Your task to perform on an android device: Clear the cart on costco.com. Image 0: 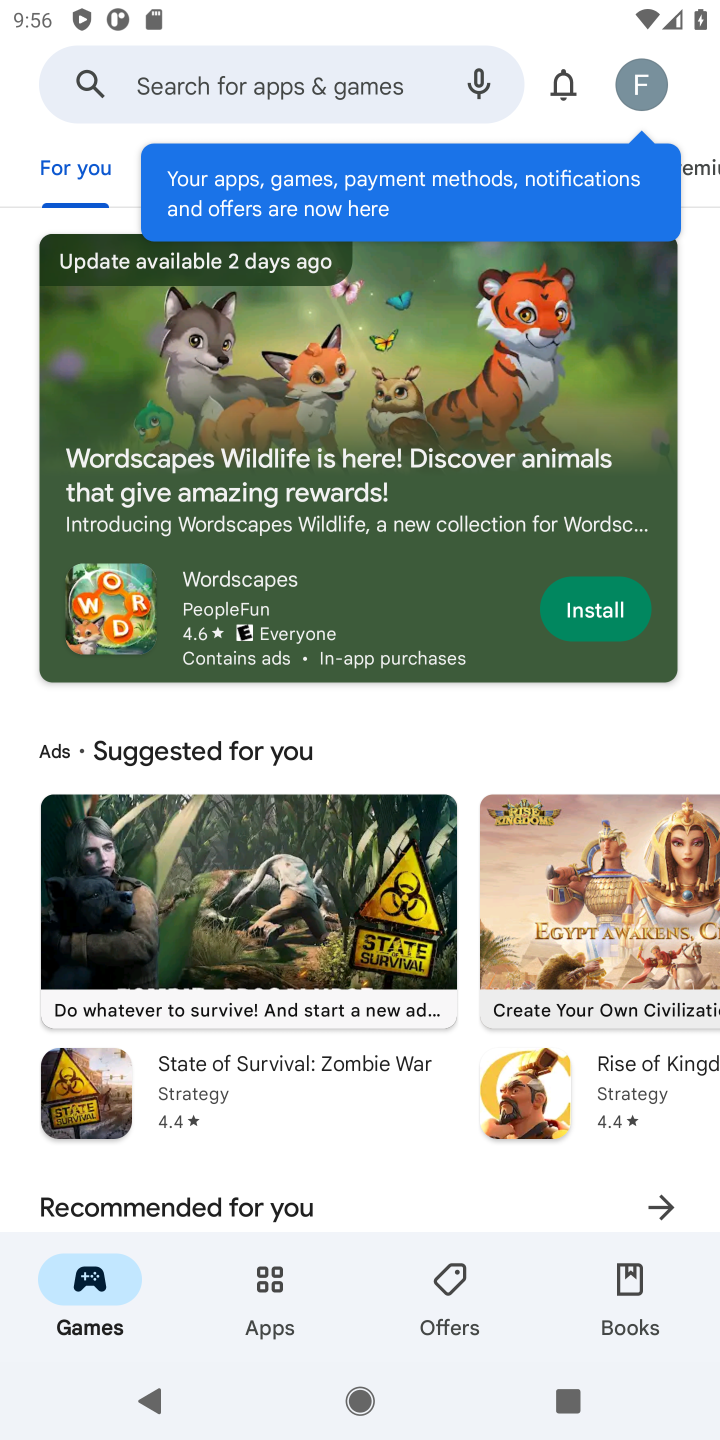
Step 0: press home button
Your task to perform on an android device: Clear the cart on costco.com. Image 1: 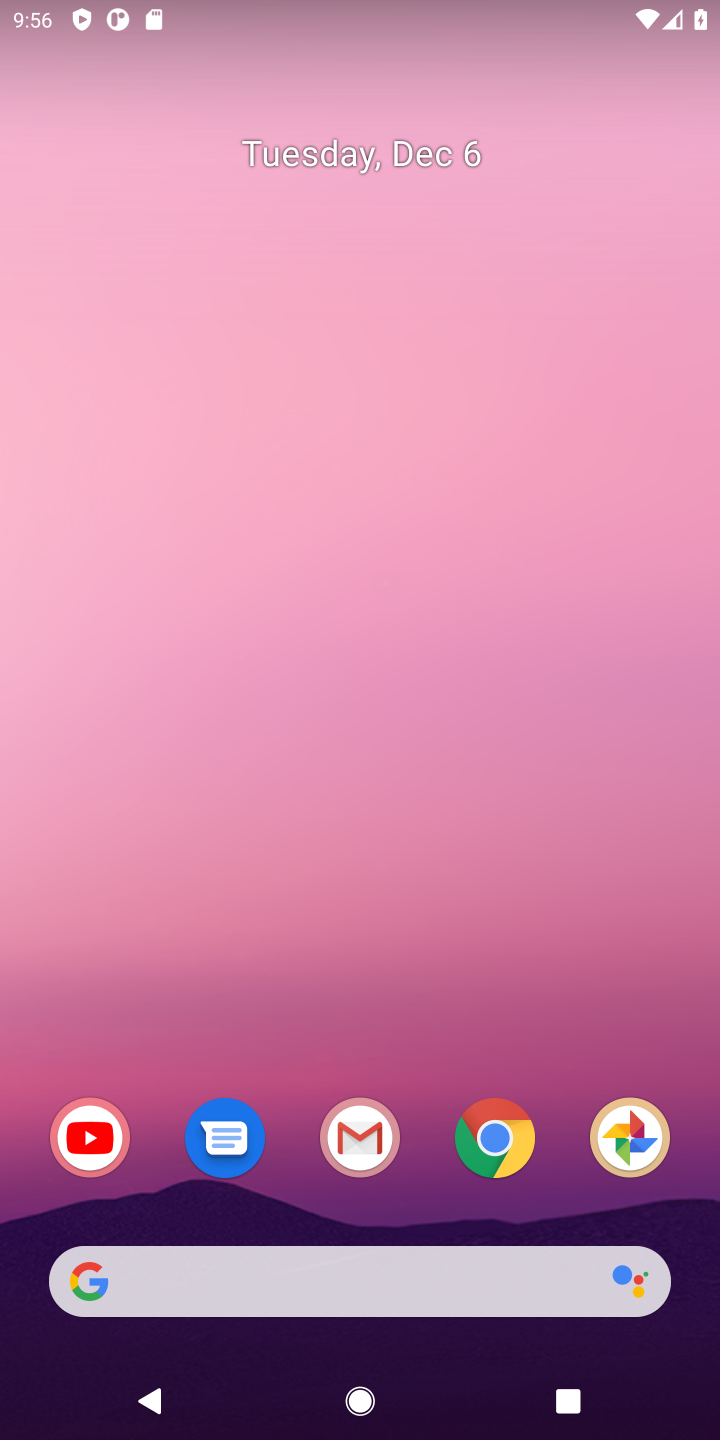
Step 1: click (507, 1145)
Your task to perform on an android device: Clear the cart on costco.com. Image 2: 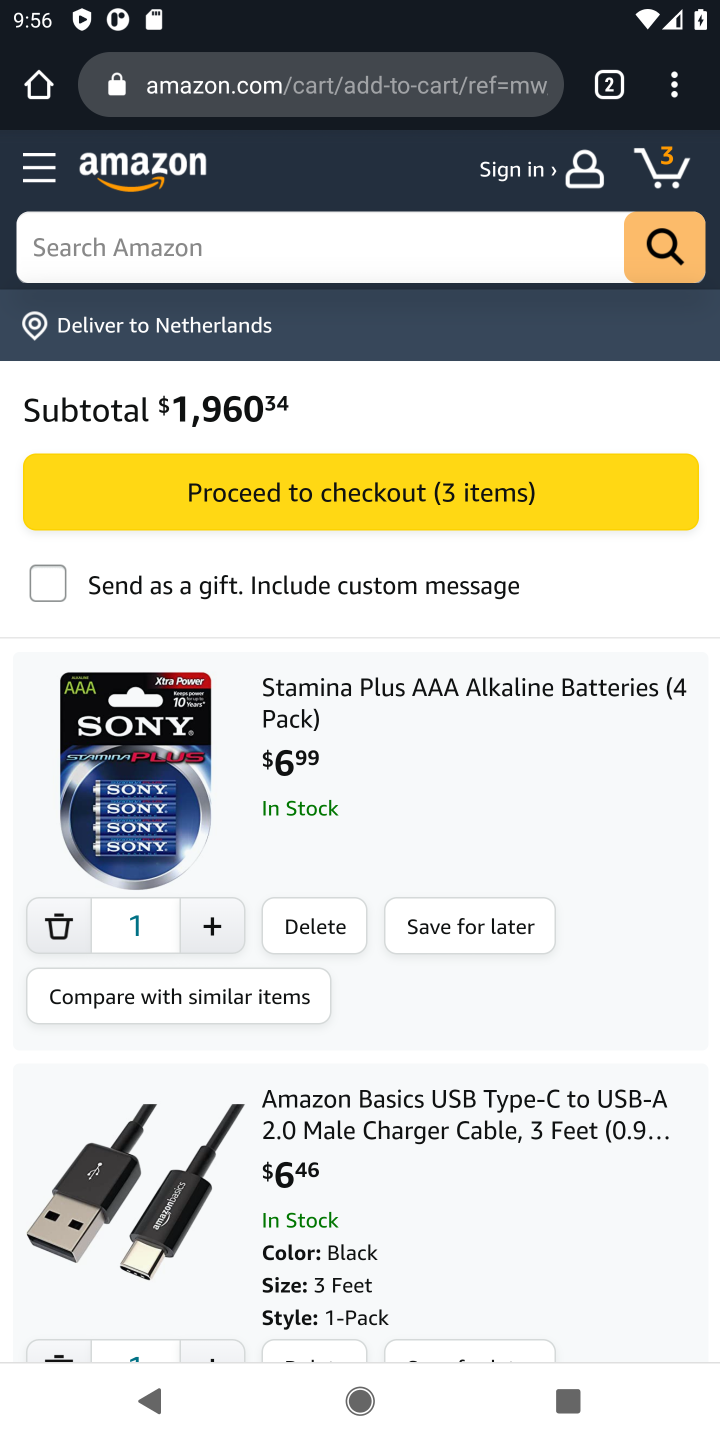
Step 2: click (283, 95)
Your task to perform on an android device: Clear the cart on costco.com. Image 3: 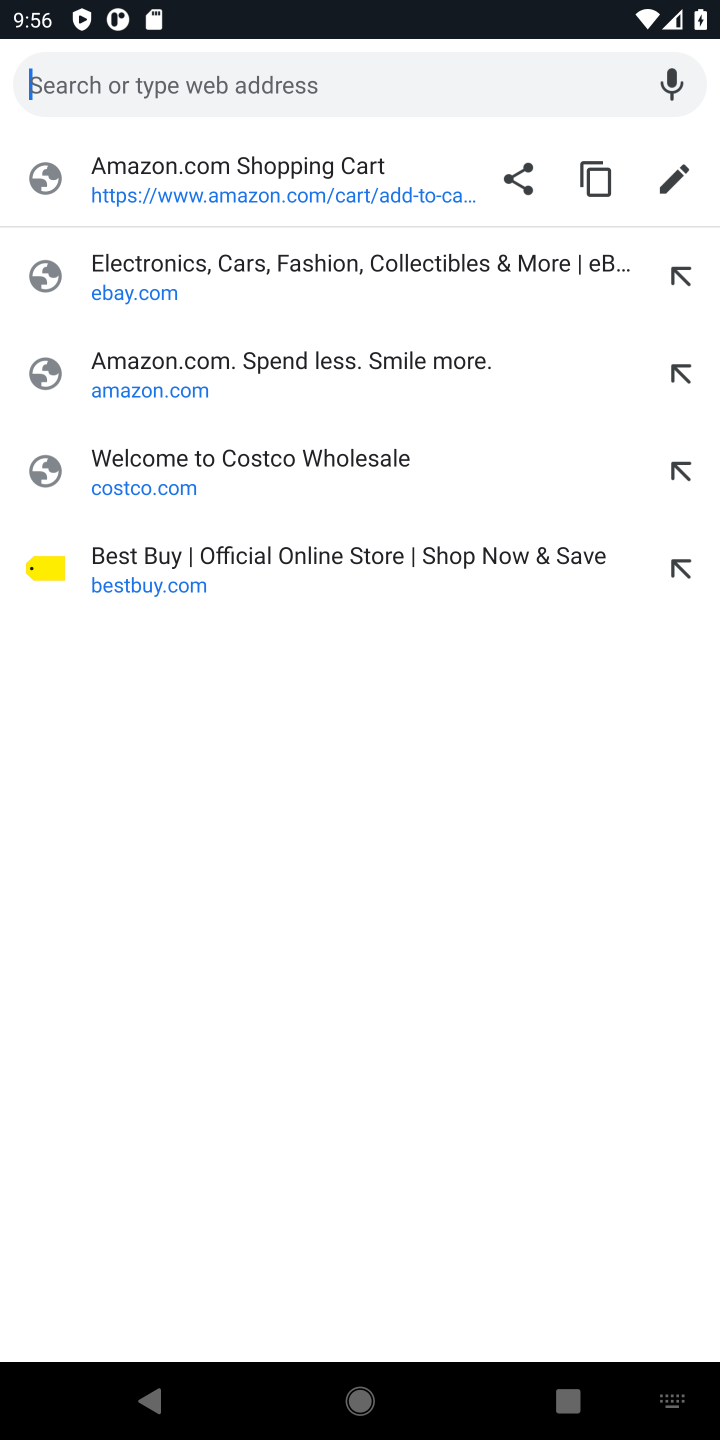
Step 3: click (133, 476)
Your task to perform on an android device: Clear the cart on costco.com. Image 4: 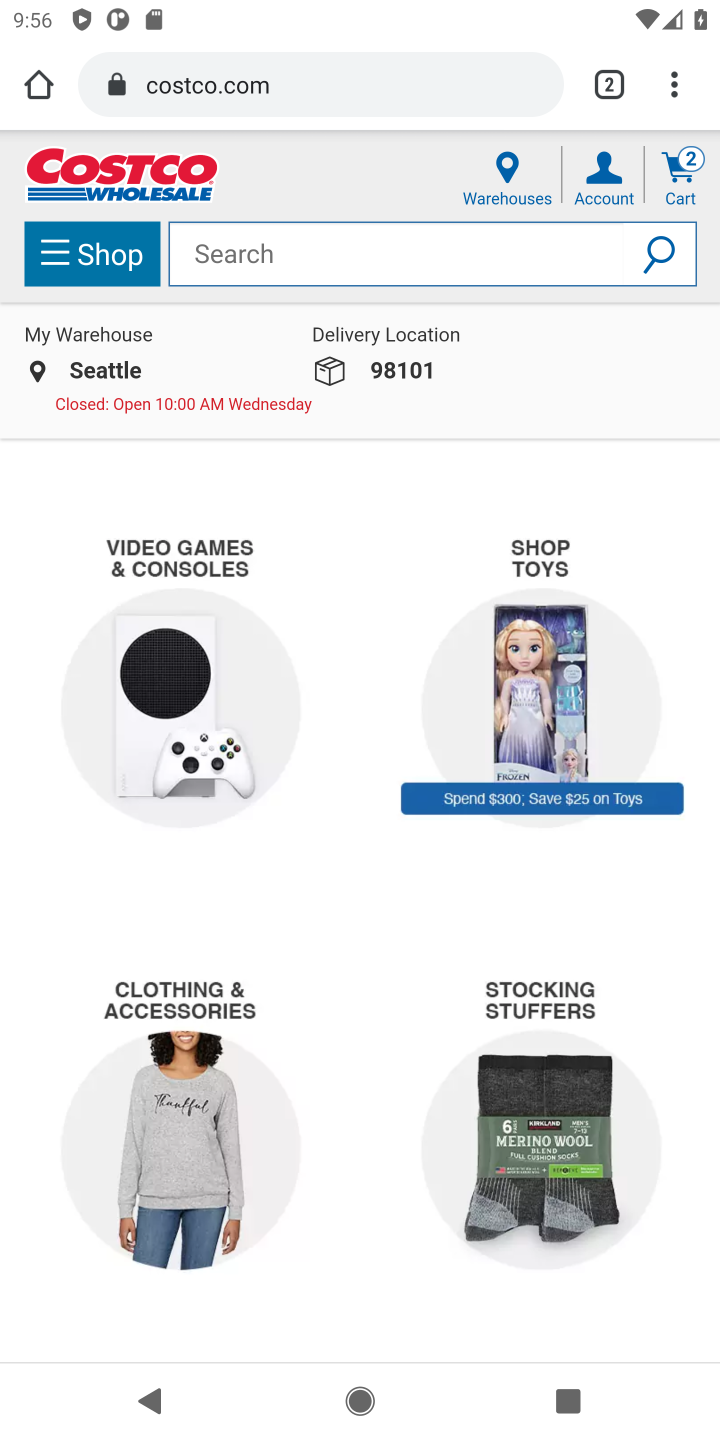
Step 4: click (679, 166)
Your task to perform on an android device: Clear the cart on costco.com. Image 5: 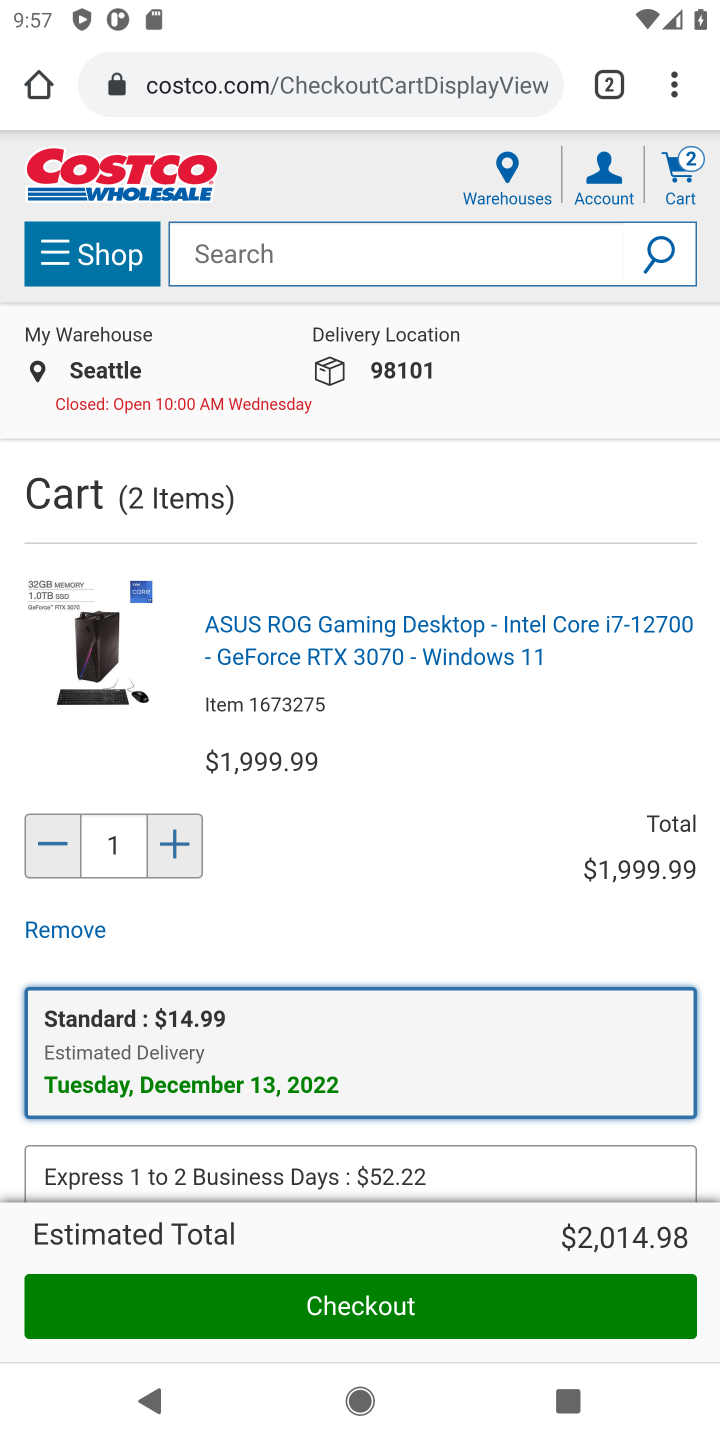
Step 5: drag from (442, 879) to (431, 362)
Your task to perform on an android device: Clear the cart on costco.com. Image 6: 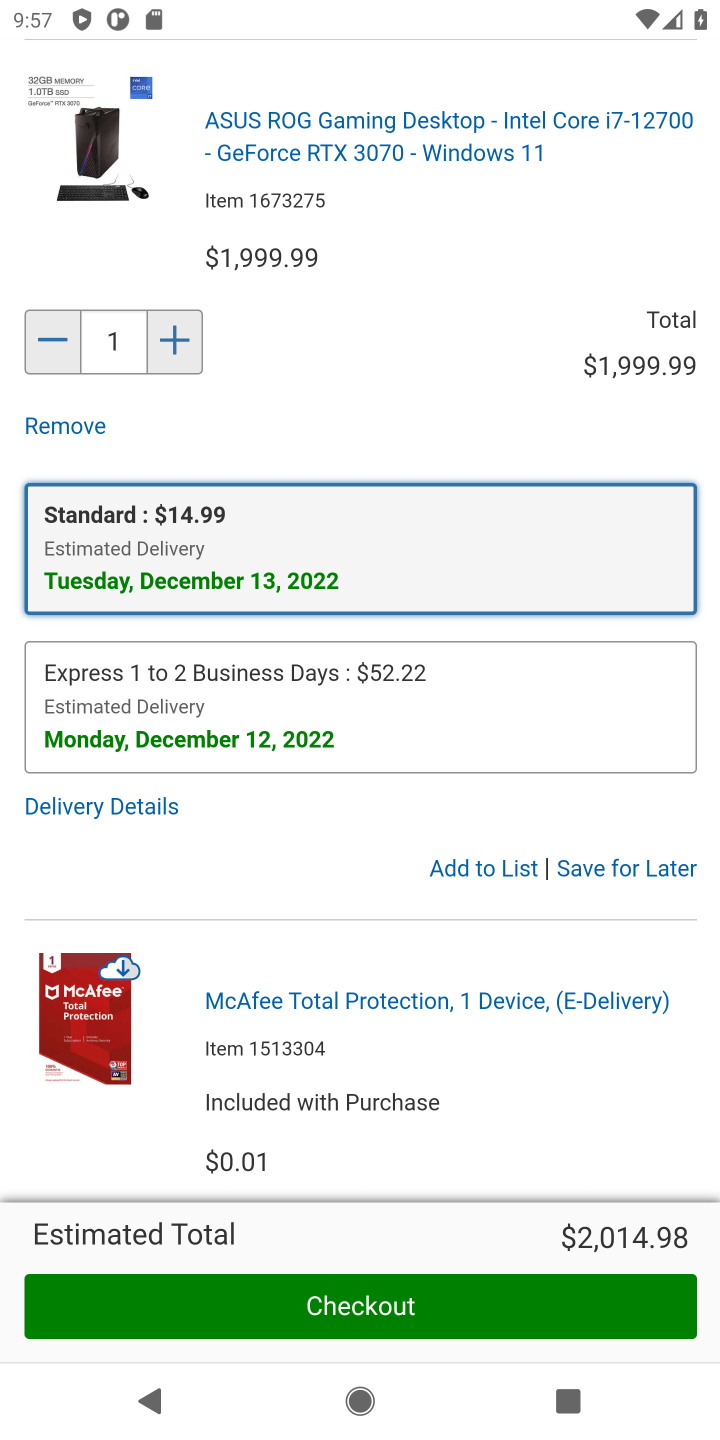
Step 6: click (639, 868)
Your task to perform on an android device: Clear the cart on costco.com. Image 7: 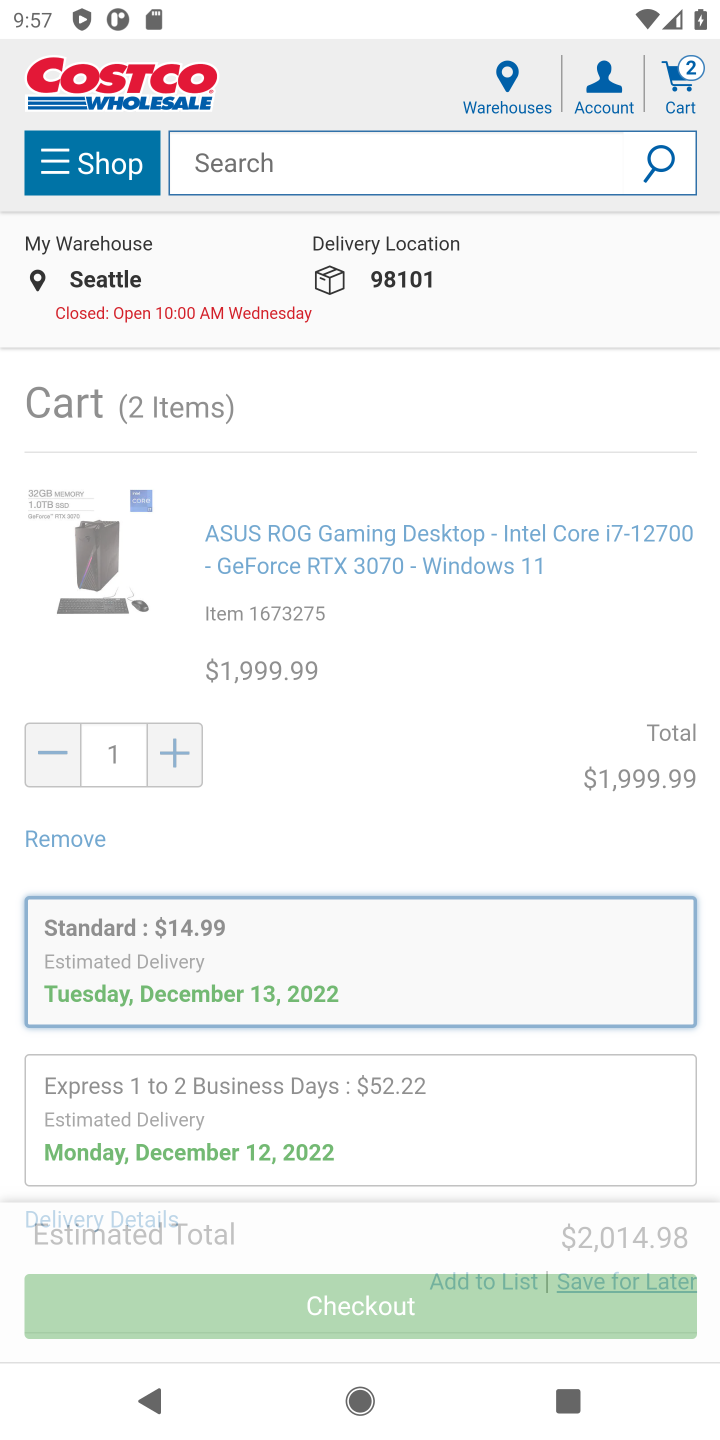
Step 7: task complete